Your task to perform on an android device: open chrome privacy settings Image 0: 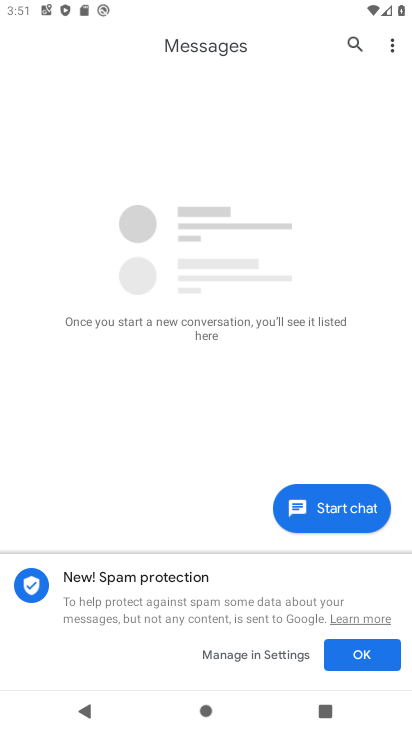
Step 0: press home button
Your task to perform on an android device: open chrome privacy settings Image 1: 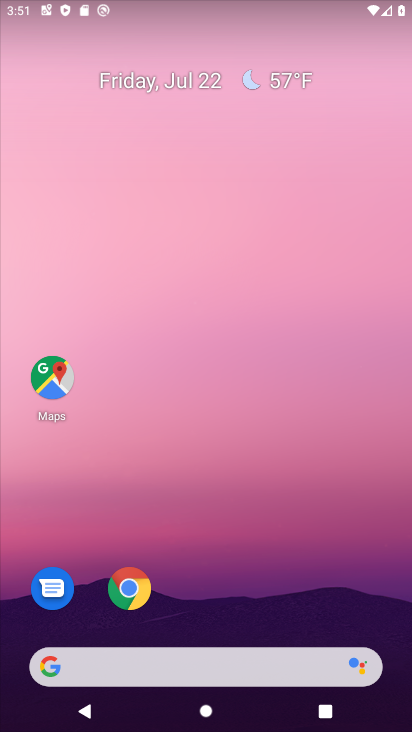
Step 1: drag from (222, 632) to (193, 9)
Your task to perform on an android device: open chrome privacy settings Image 2: 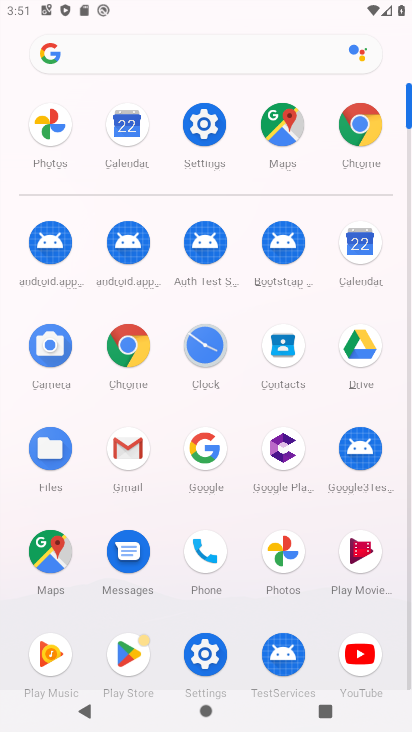
Step 2: click (122, 330)
Your task to perform on an android device: open chrome privacy settings Image 3: 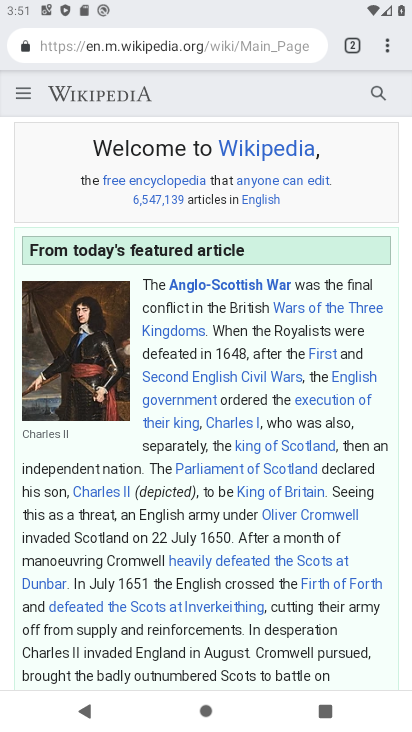
Step 3: drag from (393, 48) to (242, 548)
Your task to perform on an android device: open chrome privacy settings Image 4: 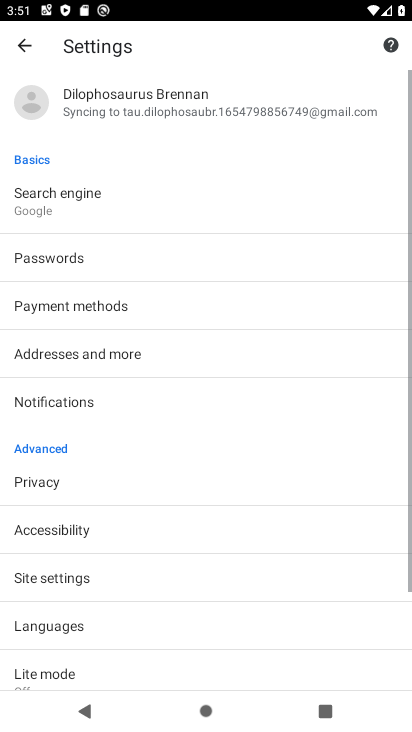
Step 4: click (51, 475)
Your task to perform on an android device: open chrome privacy settings Image 5: 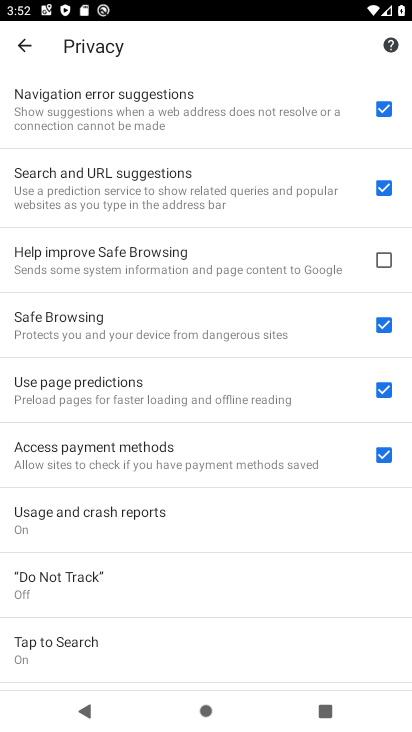
Step 5: task complete